Your task to perform on an android device: toggle sleep mode Image 0: 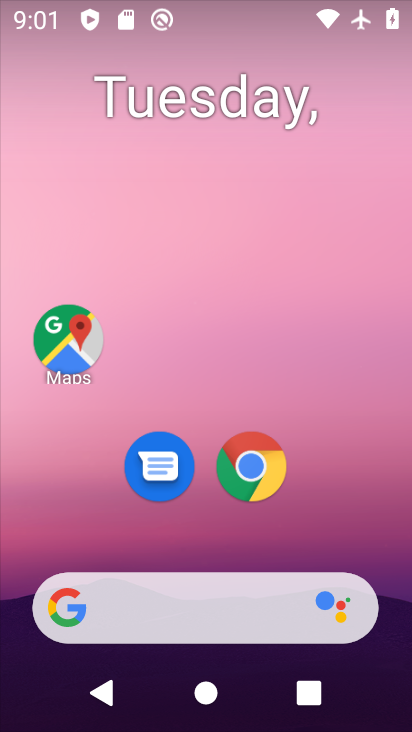
Step 0: drag from (350, 509) to (283, 152)
Your task to perform on an android device: toggle sleep mode Image 1: 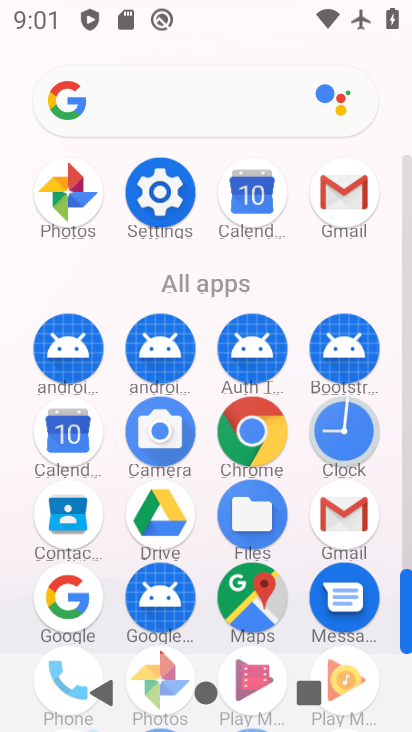
Step 1: click (181, 193)
Your task to perform on an android device: toggle sleep mode Image 2: 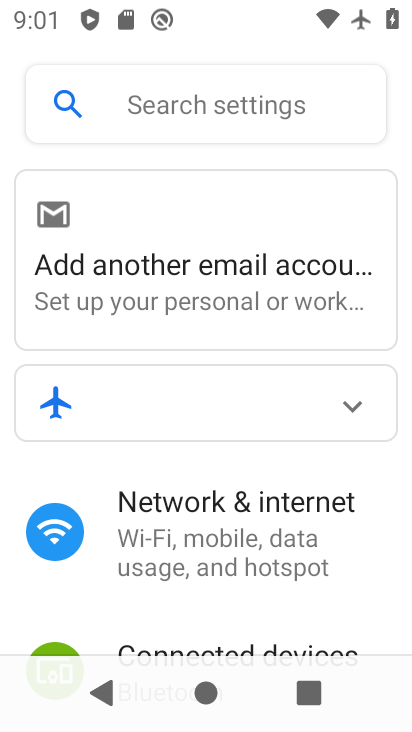
Step 2: drag from (250, 562) to (252, 90)
Your task to perform on an android device: toggle sleep mode Image 3: 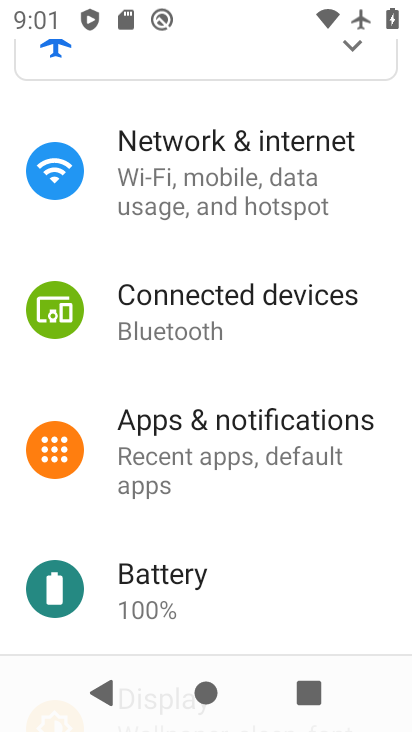
Step 3: drag from (210, 499) to (249, 172)
Your task to perform on an android device: toggle sleep mode Image 4: 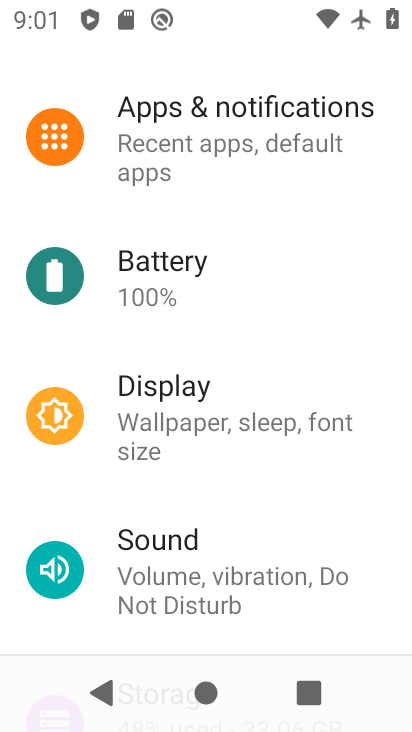
Step 4: click (208, 420)
Your task to perform on an android device: toggle sleep mode Image 5: 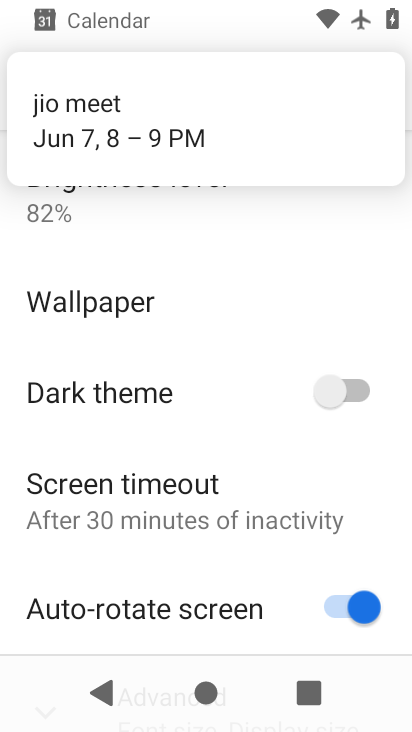
Step 5: drag from (222, 264) to (217, 479)
Your task to perform on an android device: toggle sleep mode Image 6: 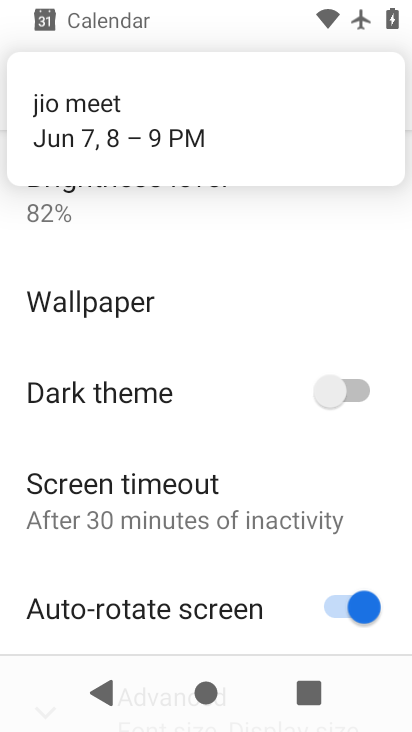
Step 6: drag from (113, 117) to (411, 305)
Your task to perform on an android device: toggle sleep mode Image 7: 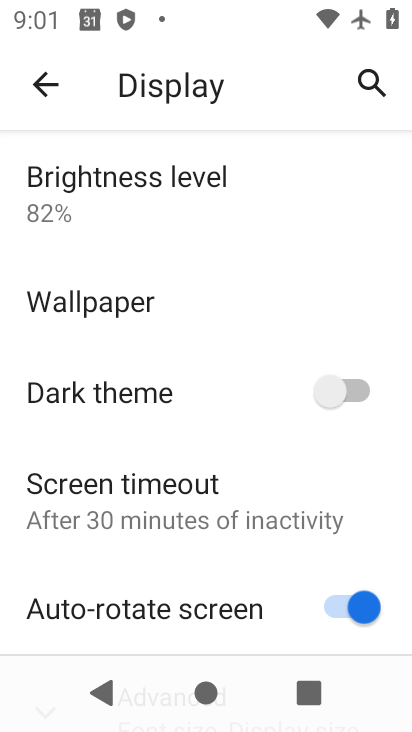
Step 7: click (166, 497)
Your task to perform on an android device: toggle sleep mode Image 8: 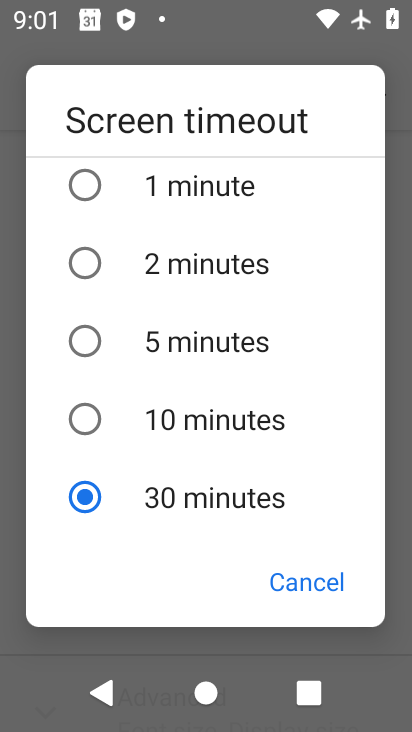
Step 8: click (234, 411)
Your task to perform on an android device: toggle sleep mode Image 9: 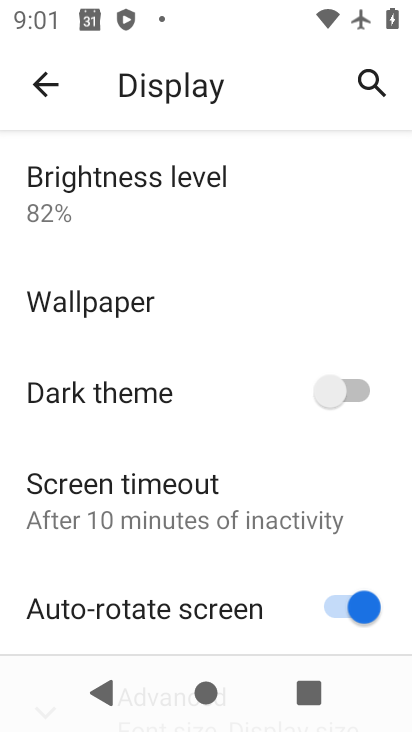
Step 9: task complete